Your task to perform on an android device: Go to privacy settings Image 0: 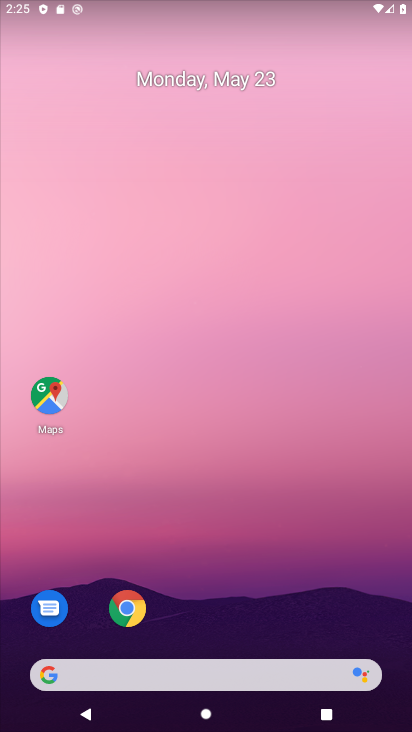
Step 0: drag from (219, 617) to (258, 346)
Your task to perform on an android device: Go to privacy settings Image 1: 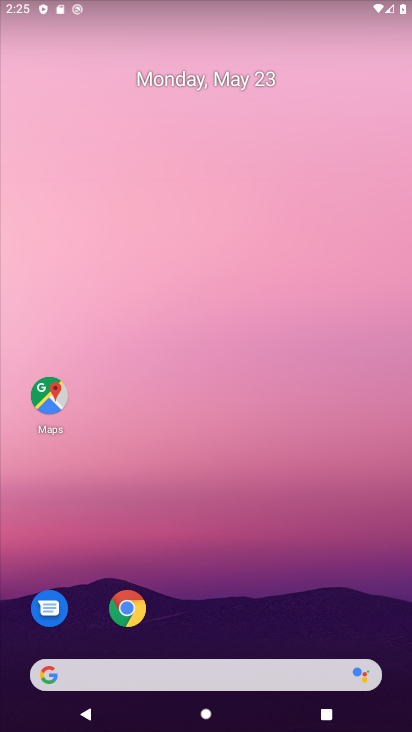
Step 1: drag from (231, 580) to (263, 257)
Your task to perform on an android device: Go to privacy settings Image 2: 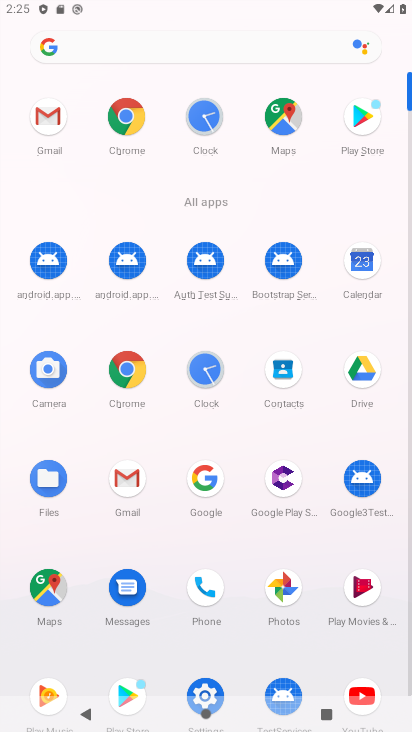
Step 2: click (125, 117)
Your task to perform on an android device: Go to privacy settings Image 3: 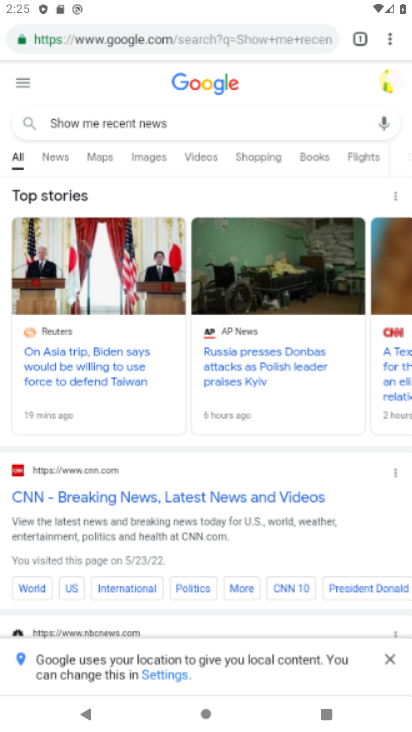
Step 3: click (383, 42)
Your task to perform on an android device: Go to privacy settings Image 4: 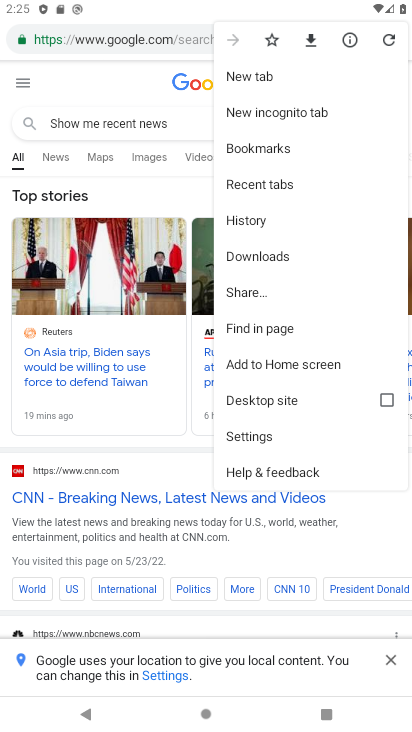
Step 4: click (269, 426)
Your task to perform on an android device: Go to privacy settings Image 5: 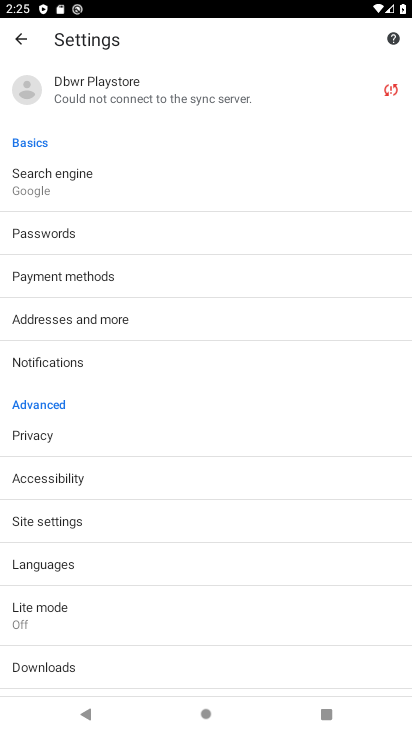
Step 5: click (29, 433)
Your task to perform on an android device: Go to privacy settings Image 6: 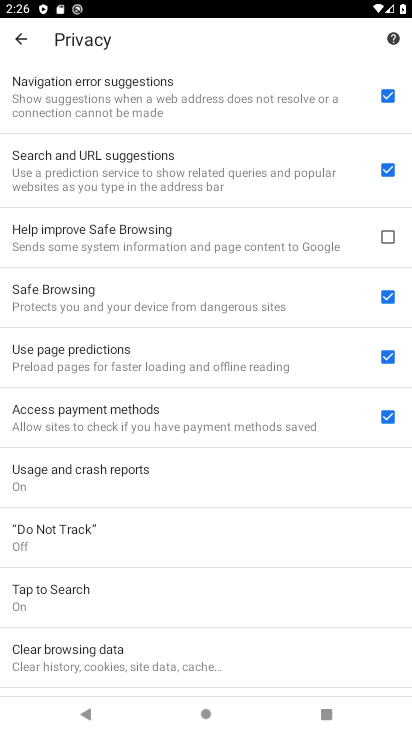
Step 6: task complete